Your task to perform on an android device: turn on improve location accuracy Image 0: 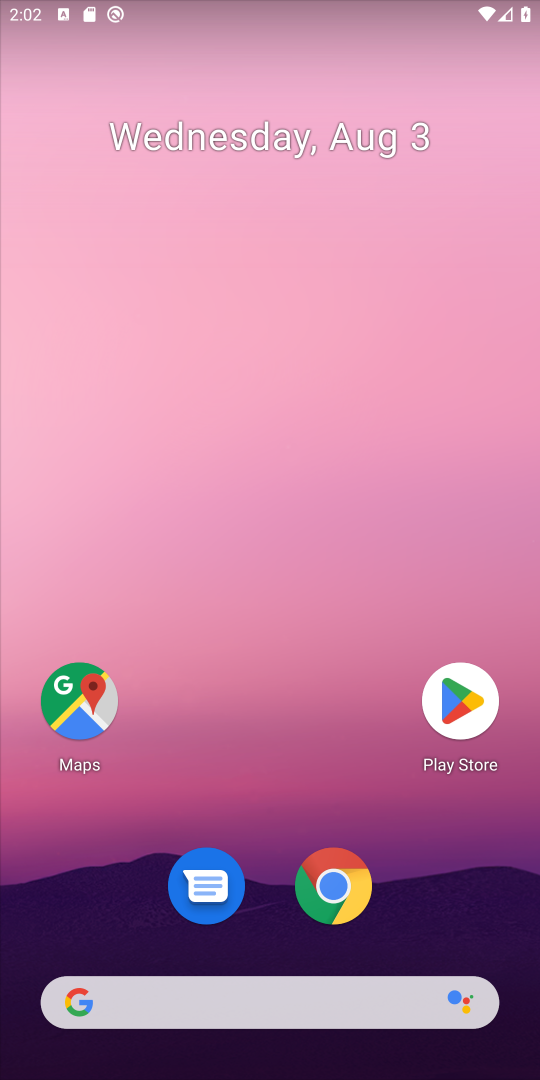
Step 0: drag from (273, 741) to (282, 46)
Your task to perform on an android device: turn on improve location accuracy Image 1: 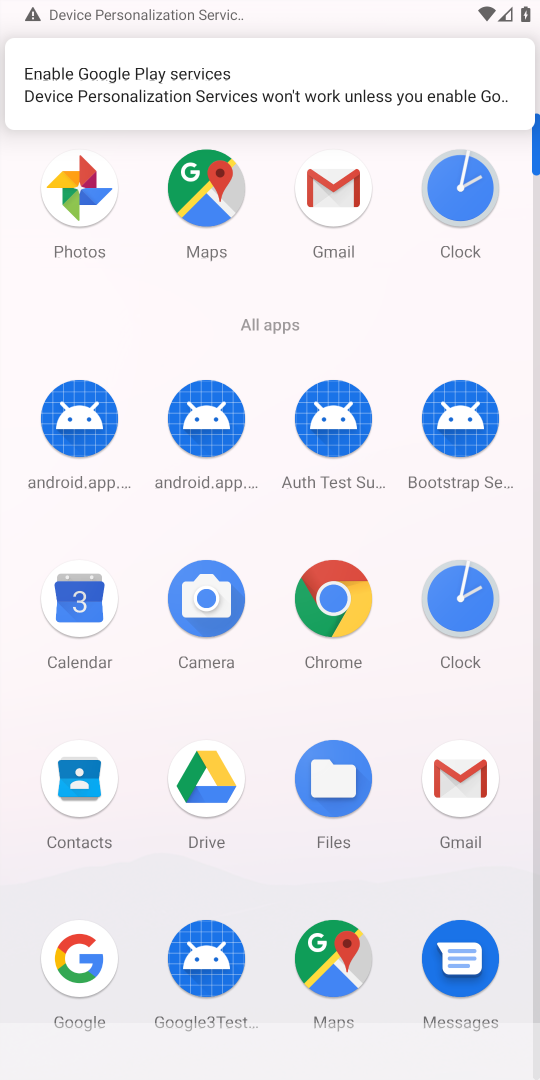
Step 1: drag from (391, 693) to (415, 141)
Your task to perform on an android device: turn on improve location accuracy Image 2: 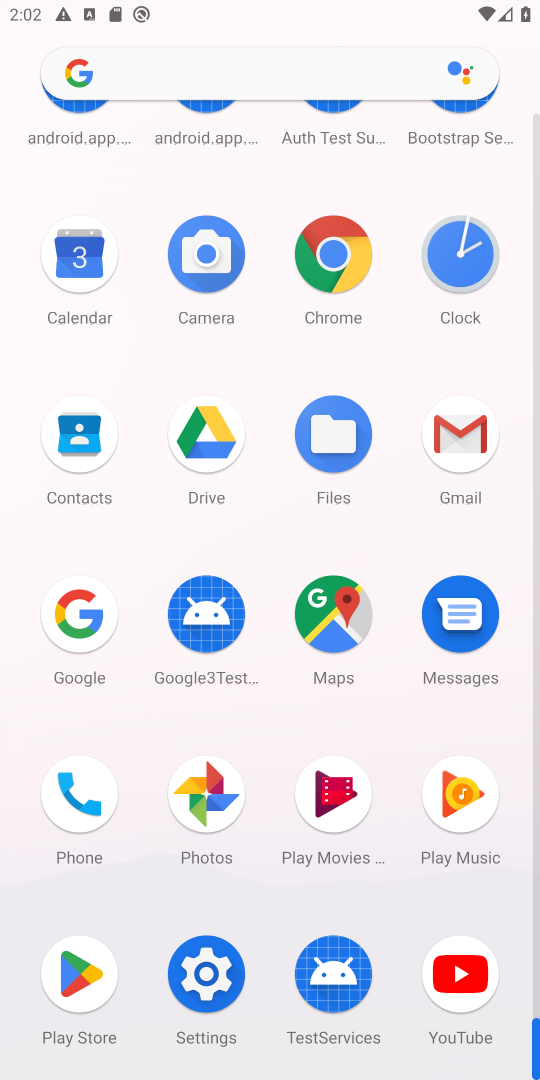
Step 2: click (209, 969)
Your task to perform on an android device: turn on improve location accuracy Image 3: 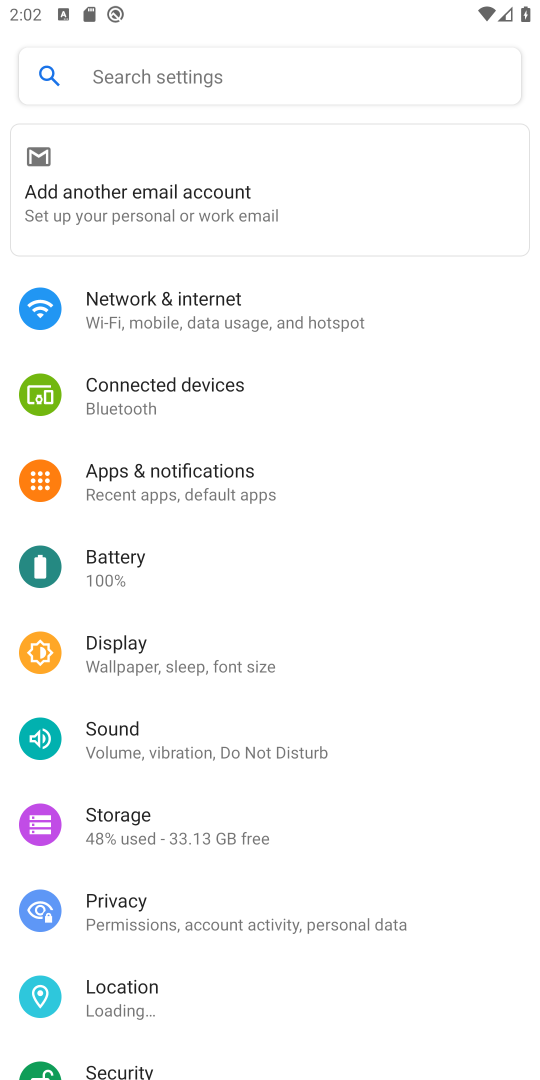
Step 3: click (159, 857)
Your task to perform on an android device: turn on improve location accuracy Image 4: 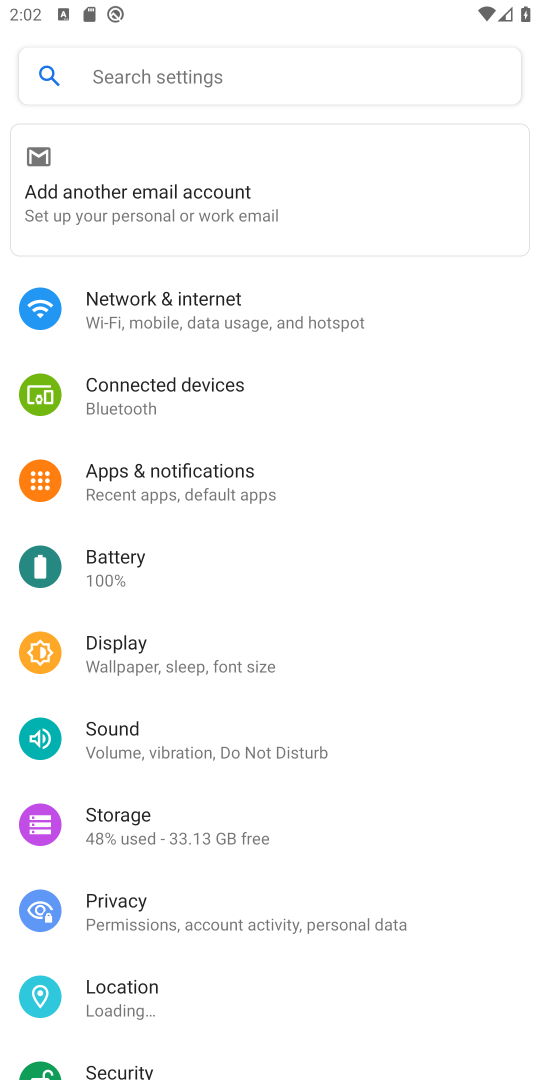
Step 4: click (159, 857)
Your task to perform on an android device: turn on improve location accuracy Image 5: 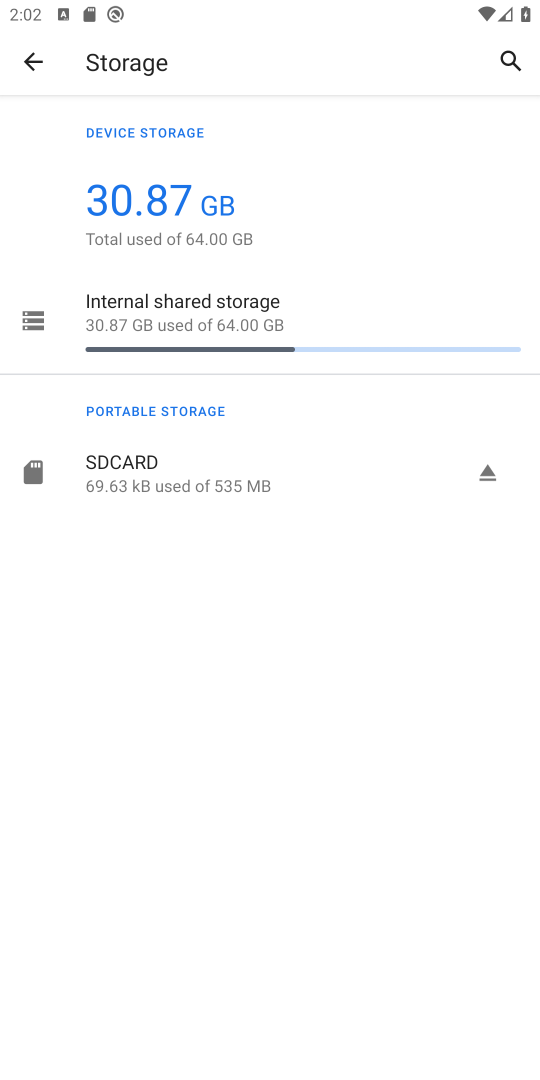
Step 5: press back button
Your task to perform on an android device: turn on improve location accuracy Image 6: 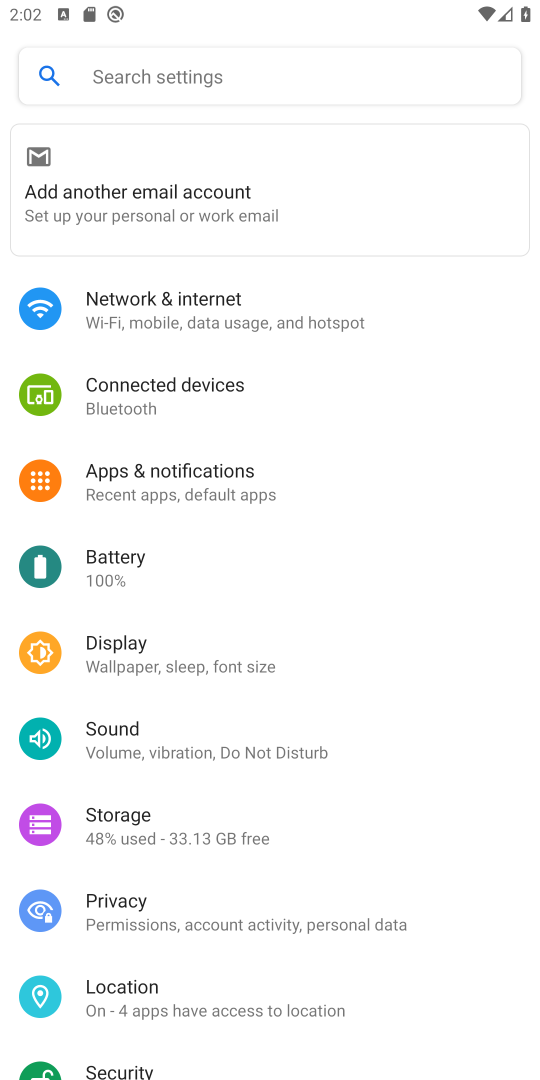
Step 6: click (147, 993)
Your task to perform on an android device: turn on improve location accuracy Image 7: 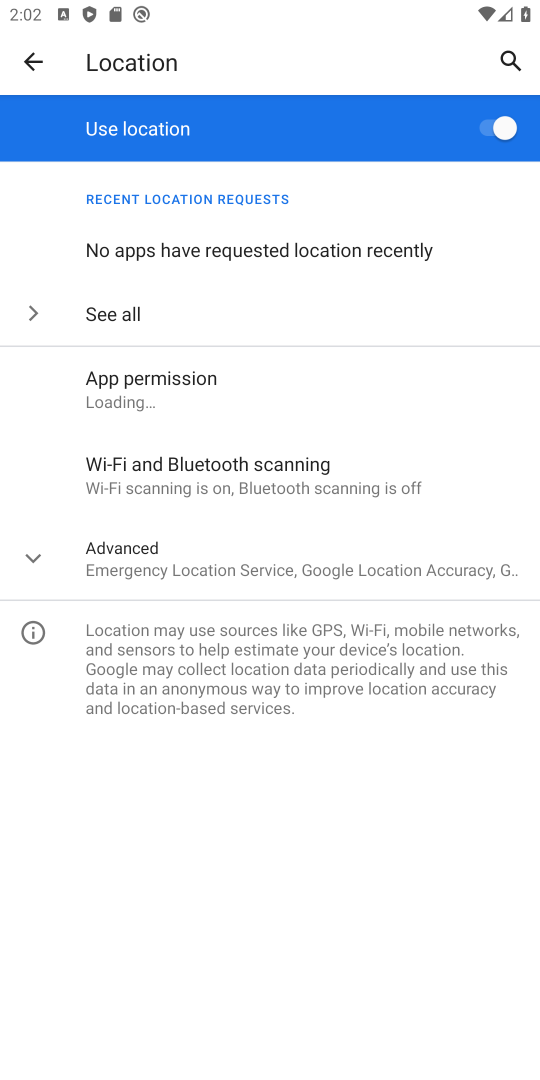
Step 7: click (256, 565)
Your task to perform on an android device: turn on improve location accuracy Image 8: 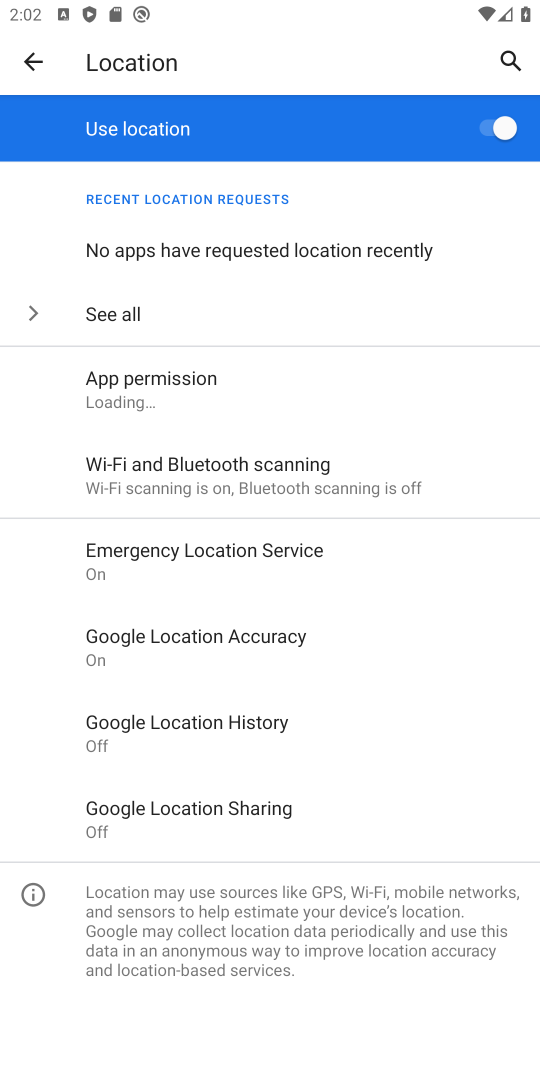
Step 8: click (289, 634)
Your task to perform on an android device: turn on improve location accuracy Image 9: 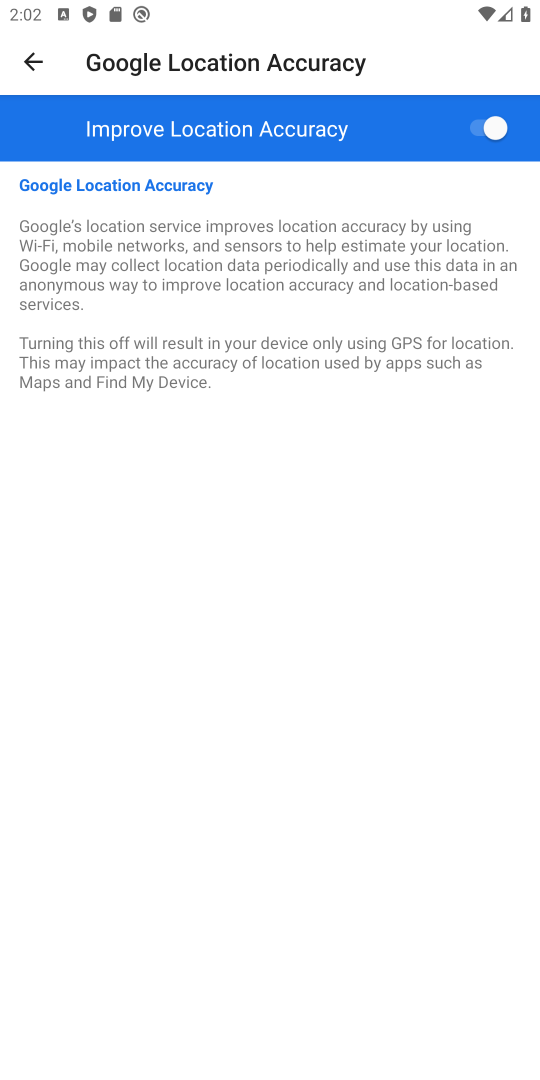
Step 9: task complete